Your task to perform on an android device: What's the weather today? Image 0: 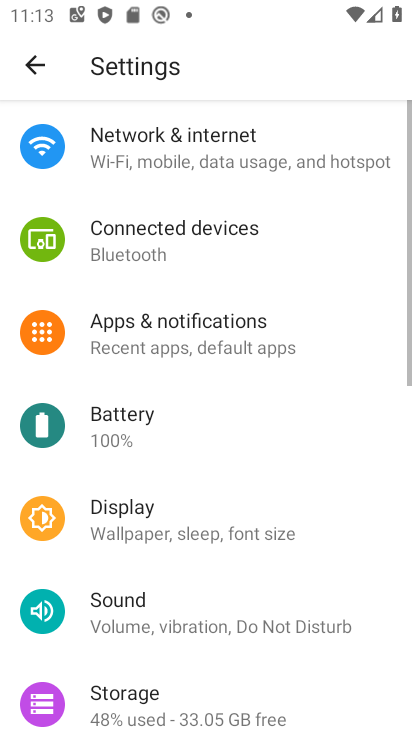
Step 0: press back button
Your task to perform on an android device: What's the weather today? Image 1: 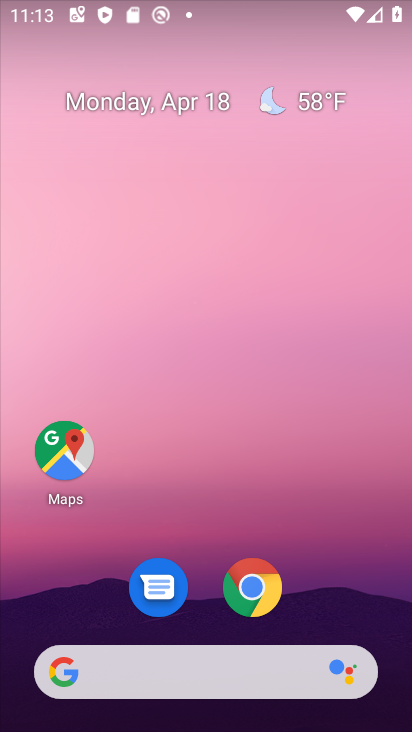
Step 1: click (294, 101)
Your task to perform on an android device: What's the weather today? Image 2: 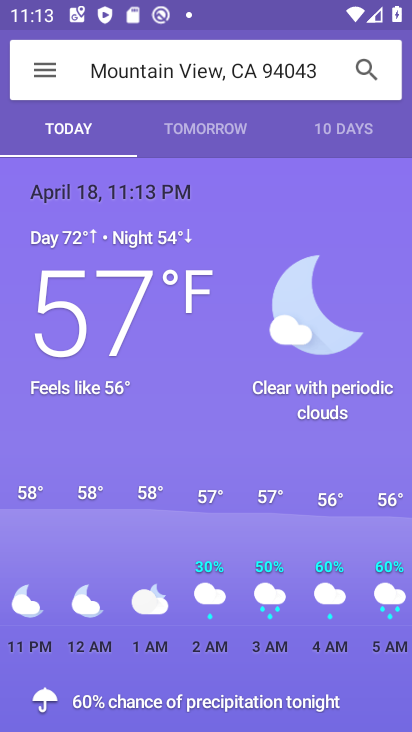
Step 2: task complete